Your task to perform on an android device: Open Google Chrome and open the bookmarks view Image 0: 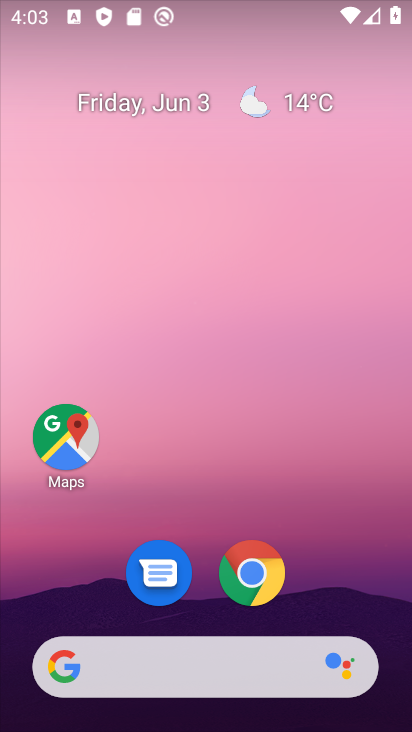
Step 0: drag from (228, 675) to (310, 6)
Your task to perform on an android device: Open Google Chrome and open the bookmarks view Image 1: 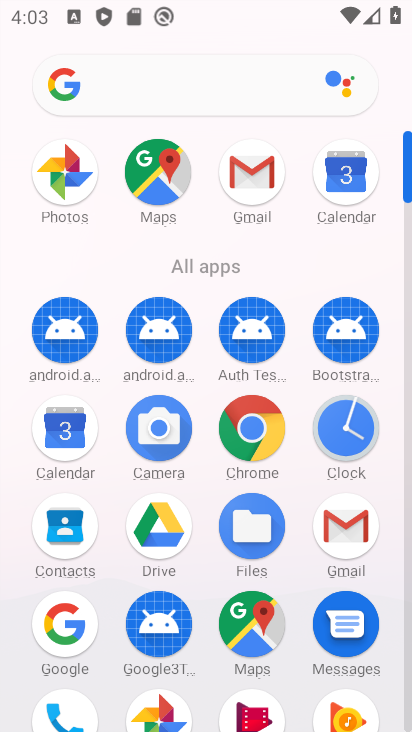
Step 1: click (259, 436)
Your task to perform on an android device: Open Google Chrome and open the bookmarks view Image 2: 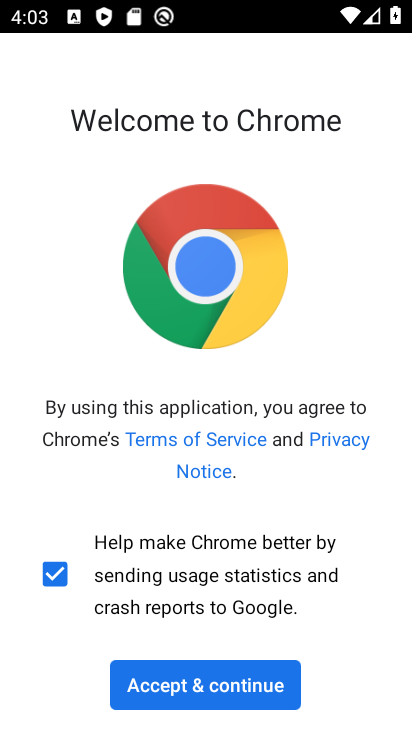
Step 2: click (184, 675)
Your task to perform on an android device: Open Google Chrome and open the bookmarks view Image 3: 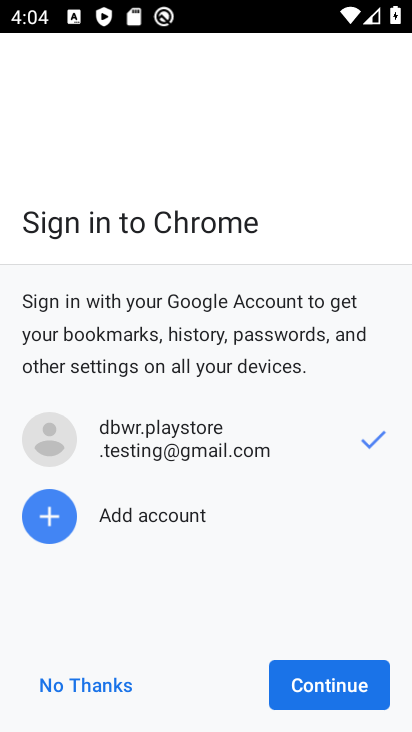
Step 3: click (351, 688)
Your task to perform on an android device: Open Google Chrome and open the bookmarks view Image 4: 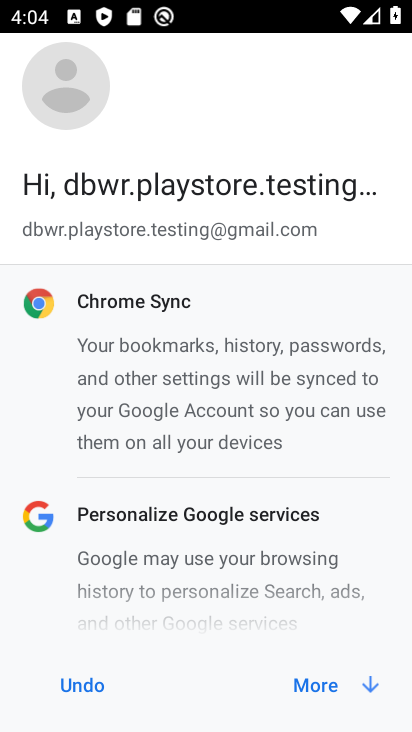
Step 4: click (100, 679)
Your task to perform on an android device: Open Google Chrome and open the bookmarks view Image 5: 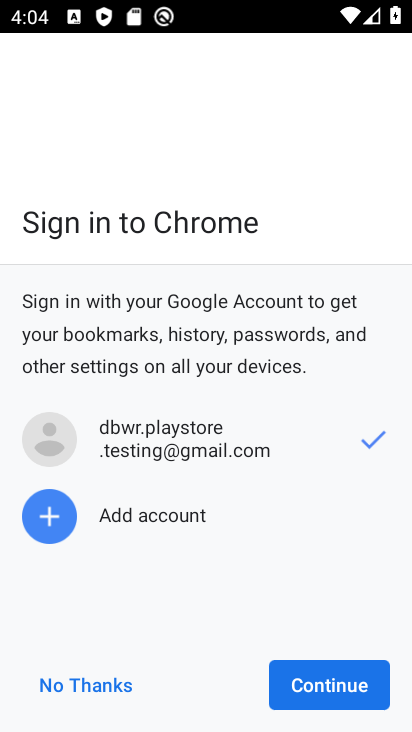
Step 5: click (100, 679)
Your task to perform on an android device: Open Google Chrome and open the bookmarks view Image 6: 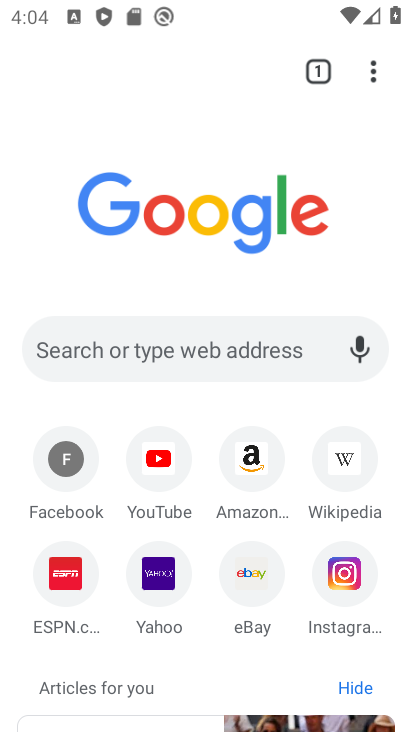
Step 6: task complete